Your task to perform on an android device: see creations saved in the google photos Image 0: 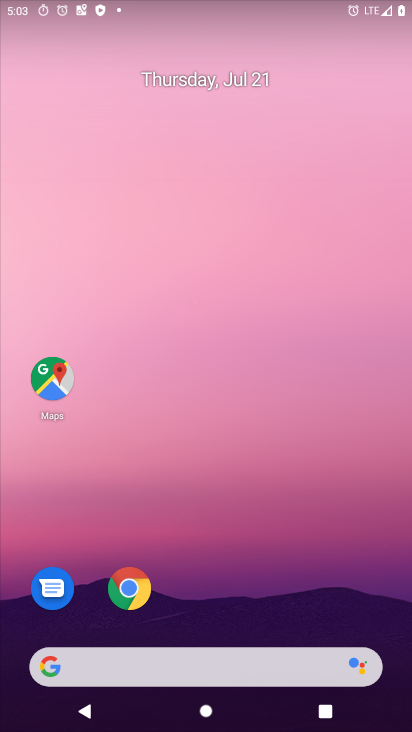
Step 0: drag from (247, 581) to (259, 103)
Your task to perform on an android device: see creations saved in the google photos Image 1: 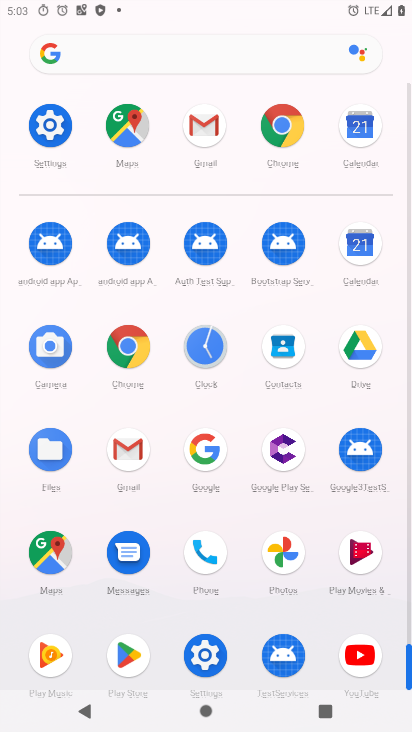
Step 1: click (279, 547)
Your task to perform on an android device: see creations saved in the google photos Image 2: 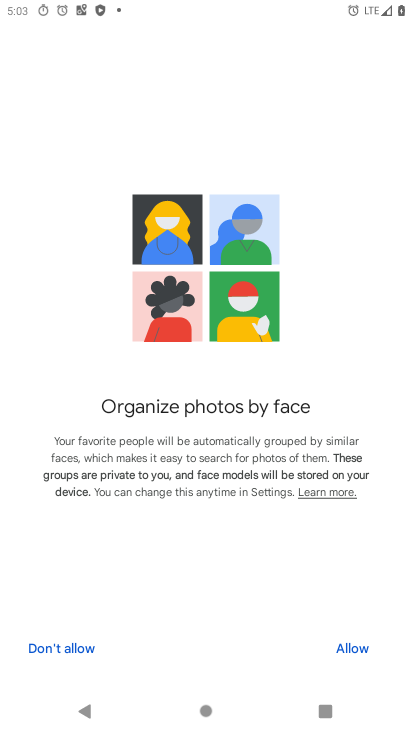
Step 2: click (337, 637)
Your task to perform on an android device: see creations saved in the google photos Image 3: 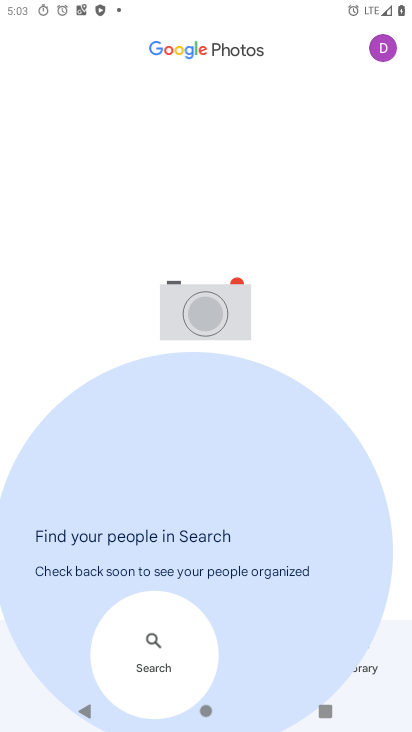
Step 3: click (148, 631)
Your task to perform on an android device: see creations saved in the google photos Image 4: 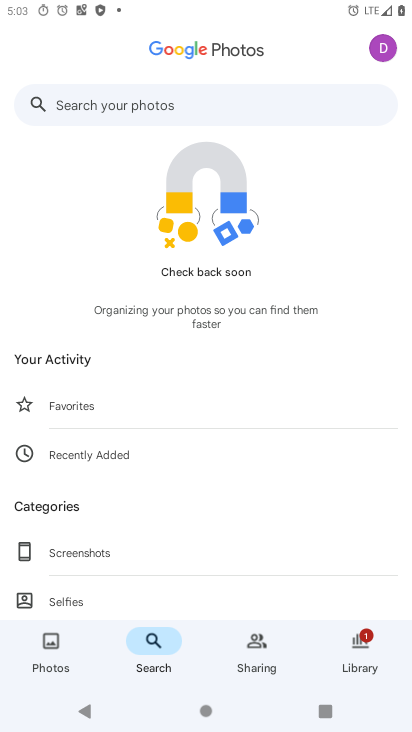
Step 4: drag from (125, 552) to (145, 233)
Your task to perform on an android device: see creations saved in the google photos Image 5: 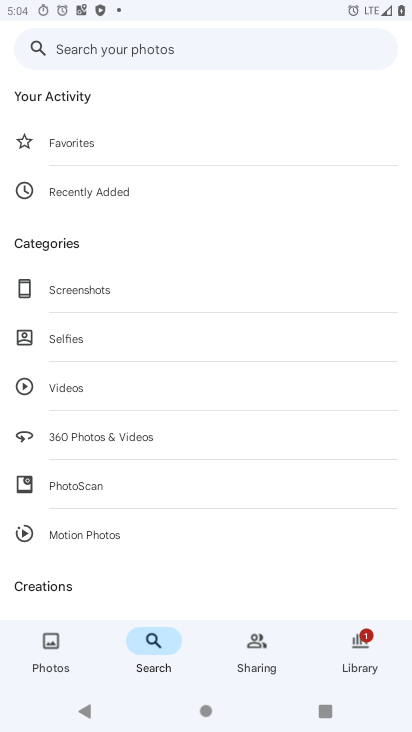
Step 5: click (41, 581)
Your task to perform on an android device: see creations saved in the google photos Image 6: 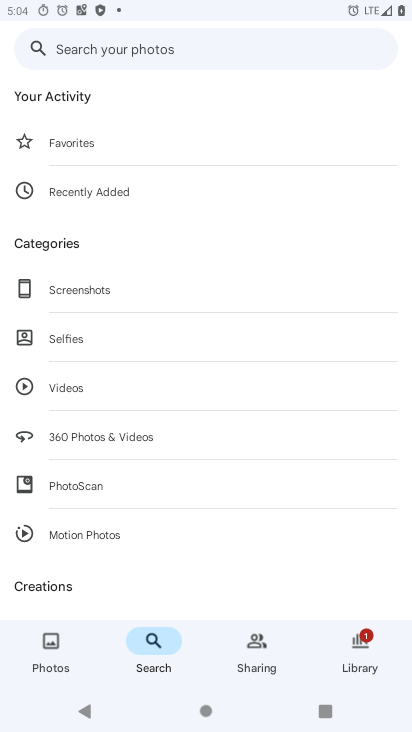
Step 6: click (41, 581)
Your task to perform on an android device: see creations saved in the google photos Image 7: 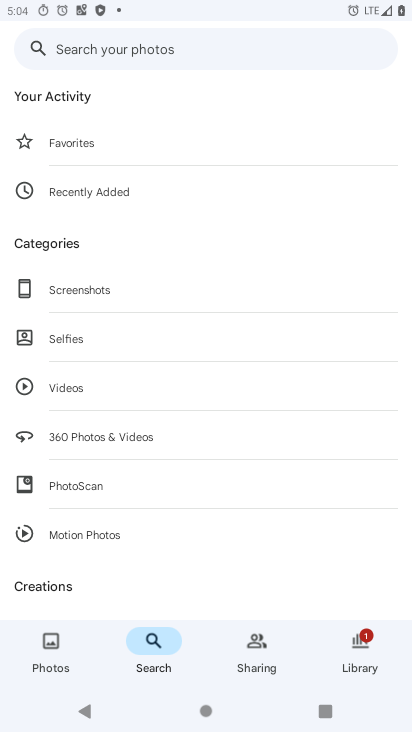
Step 7: click (82, 42)
Your task to perform on an android device: see creations saved in the google photos Image 8: 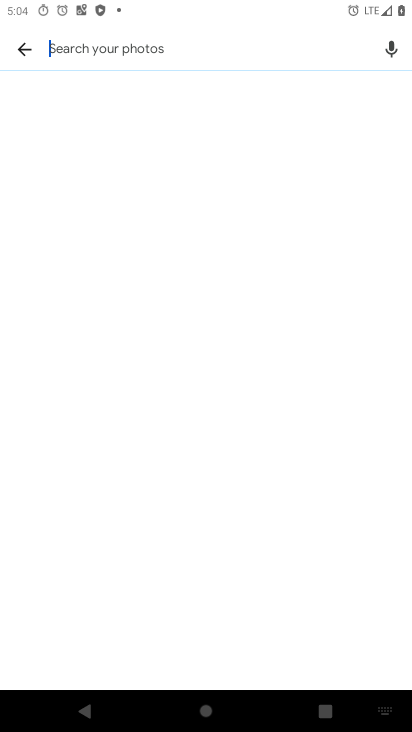
Step 8: click (32, 46)
Your task to perform on an android device: see creations saved in the google photos Image 9: 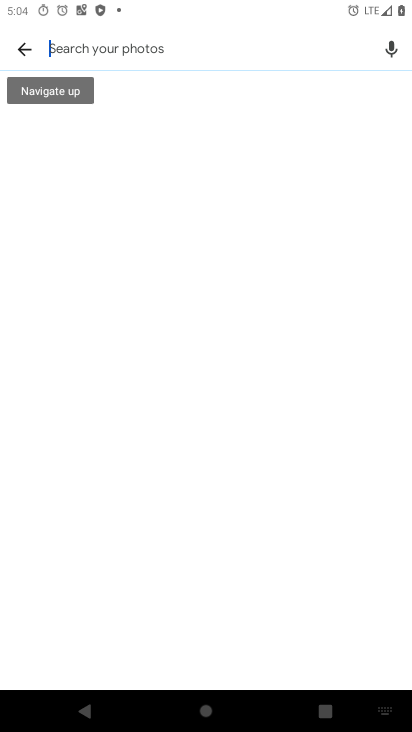
Step 9: click (32, 46)
Your task to perform on an android device: see creations saved in the google photos Image 10: 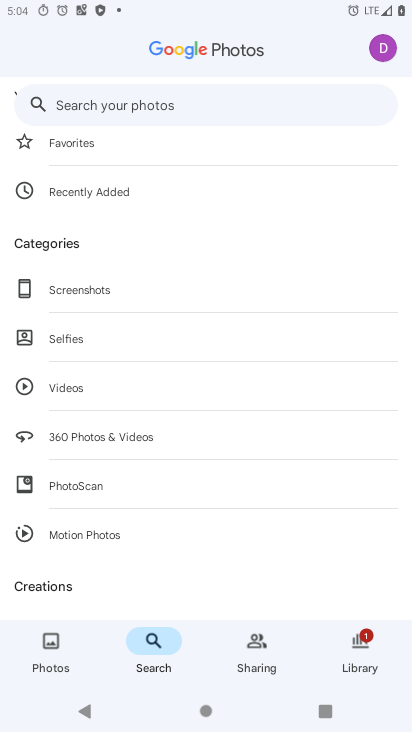
Step 10: drag from (99, 545) to (171, 190)
Your task to perform on an android device: see creations saved in the google photos Image 11: 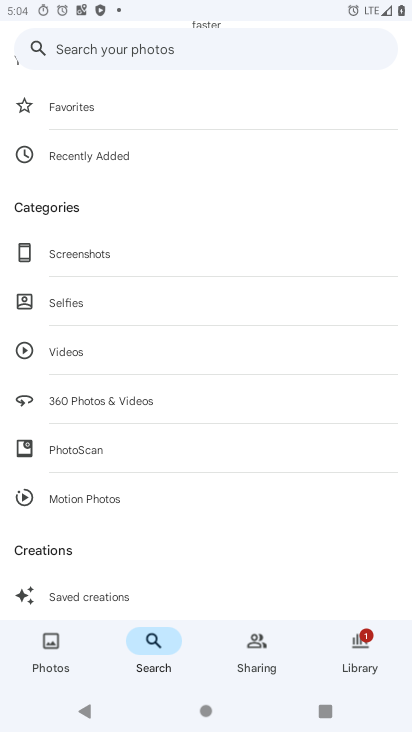
Step 11: click (76, 603)
Your task to perform on an android device: see creations saved in the google photos Image 12: 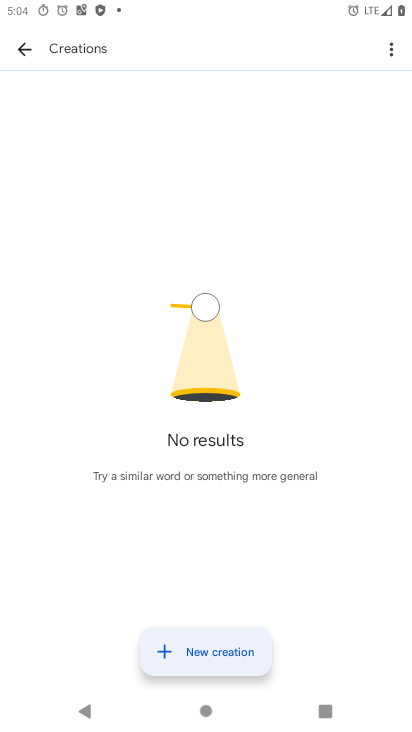
Step 12: task complete